Your task to perform on an android device: change text size in settings app Image 0: 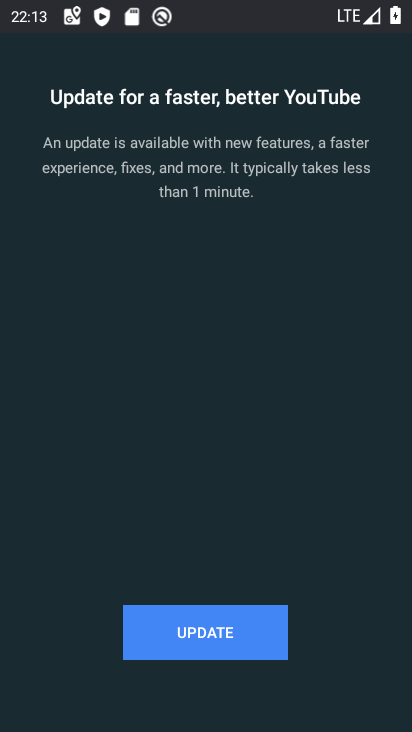
Step 0: press home button
Your task to perform on an android device: change text size in settings app Image 1: 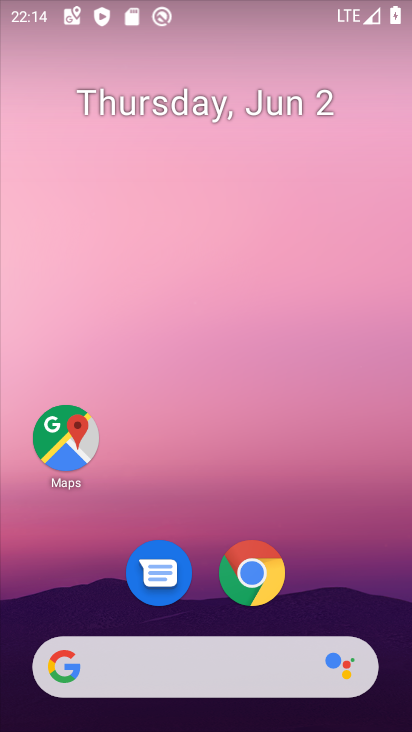
Step 1: drag from (310, 599) to (252, 188)
Your task to perform on an android device: change text size in settings app Image 2: 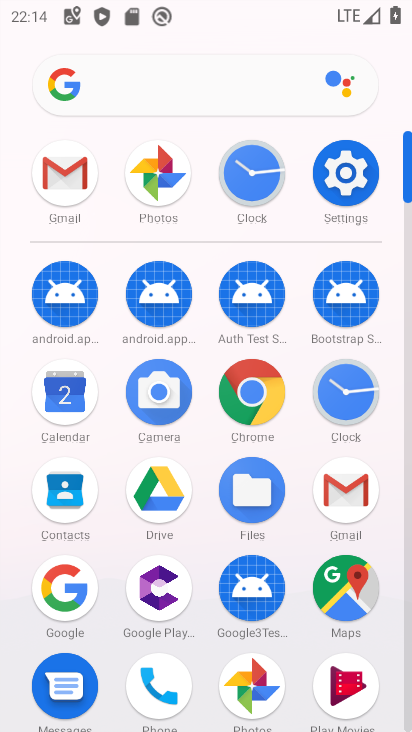
Step 2: click (347, 183)
Your task to perform on an android device: change text size in settings app Image 3: 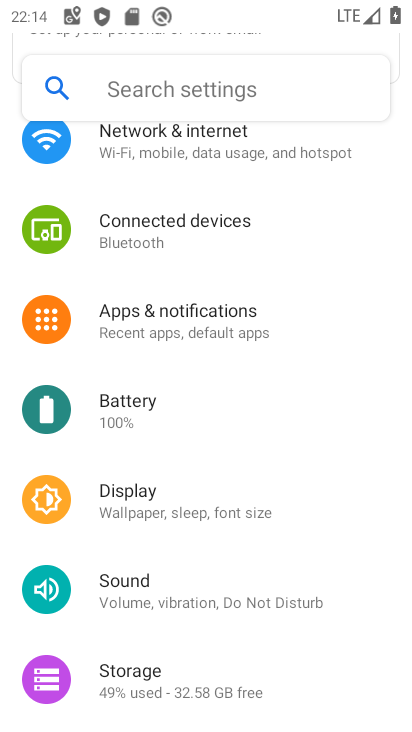
Step 3: click (167, 495)
Your task to perform on an android device: change text size in settings app Image 4: 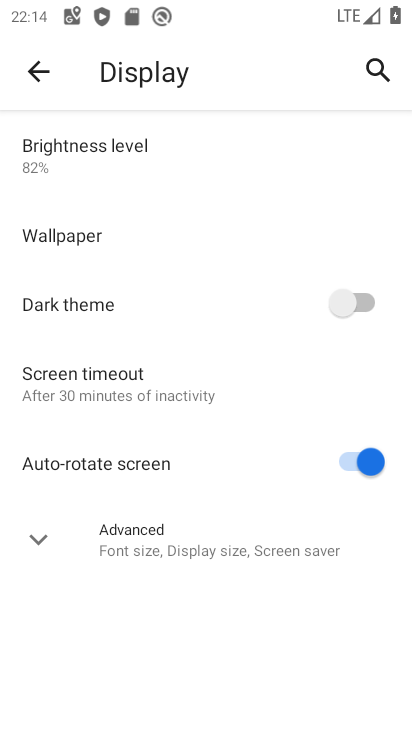
Step 4: click (172, 530)
Your task to perform on an android device: change text size in settings app Image 5: 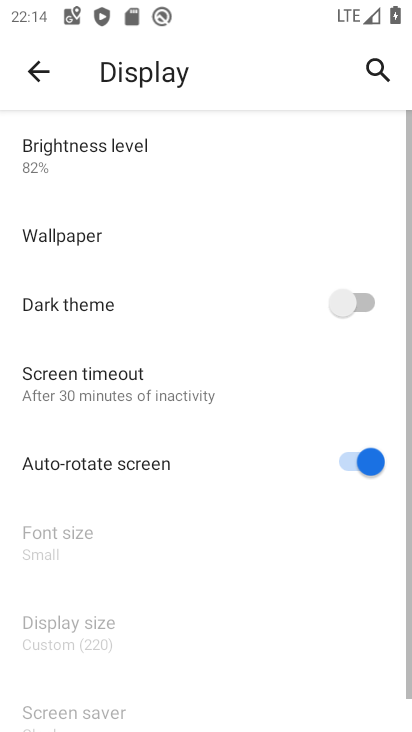
Step 5: click (172, 530)
Your task to perform on an android device: change text size in settings app Image 6: 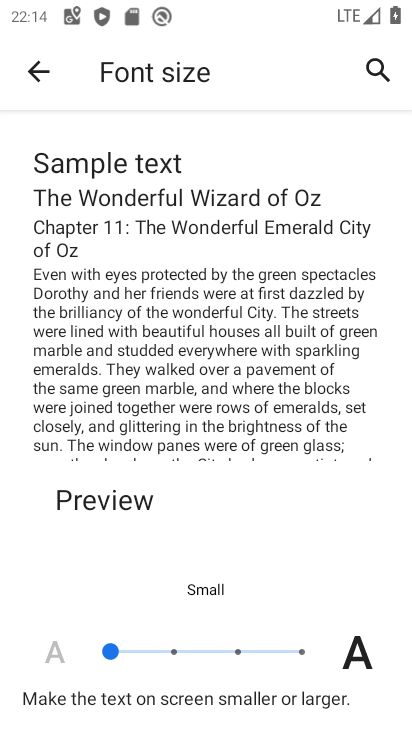
Step 6: click (172, 646)
Your task to perform on an android device: change text size in settings app Image 7: 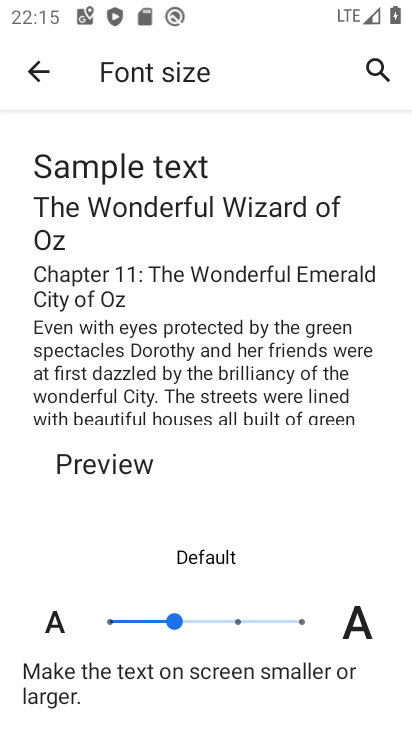
Step 7: task complete